Your task to perform on an android device: turn off notifications in google photos Image 0: 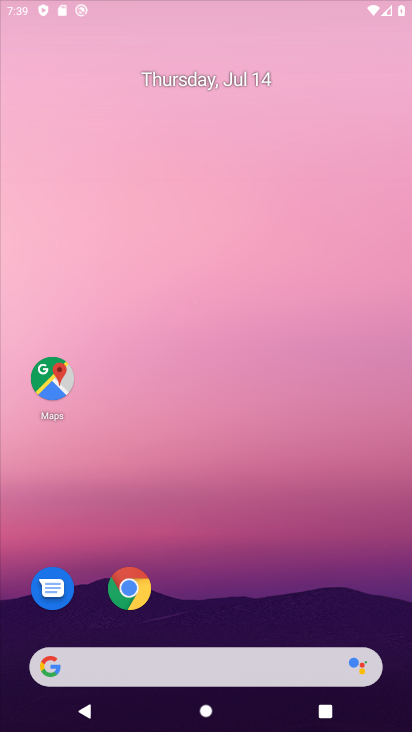
Step 0: drag from (20, 690) to (211, 122)
Your task to perform on an android device: turn off notifications in google photos Image 1: 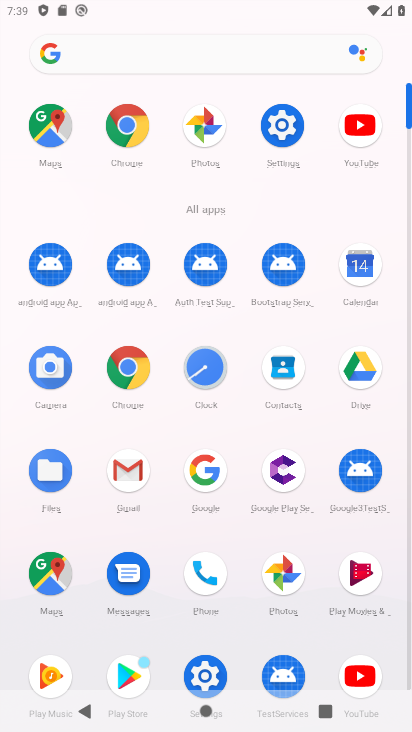
Step 1: click (194, 668)
Your task to perform on an android device: turn off notifications in google photos Image 2: 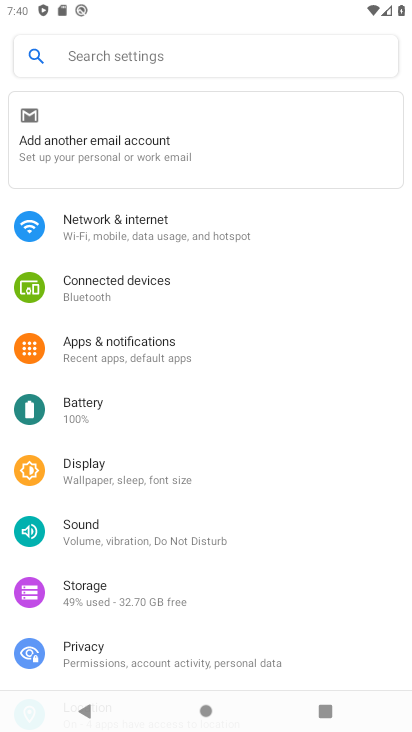
Step 2: drag from (312, 578) to (386, 145)
Your task to perform on an android device: turn off notifications in google photos Image 3: 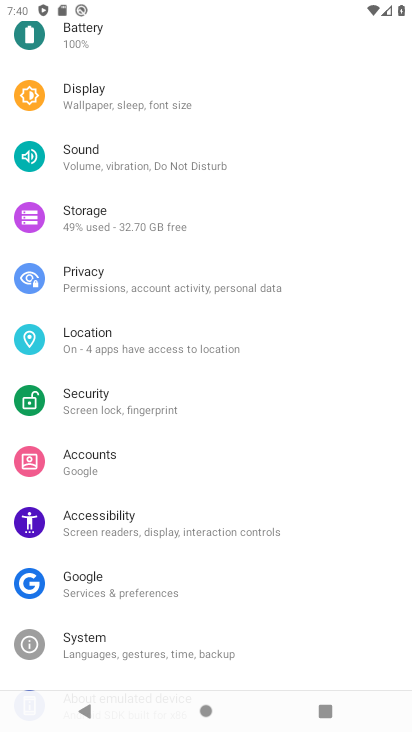
Step 3: drag from (206, 597) to (253, 279)
Your task to perform on an android device: turn off notifications in google photos Image 4: 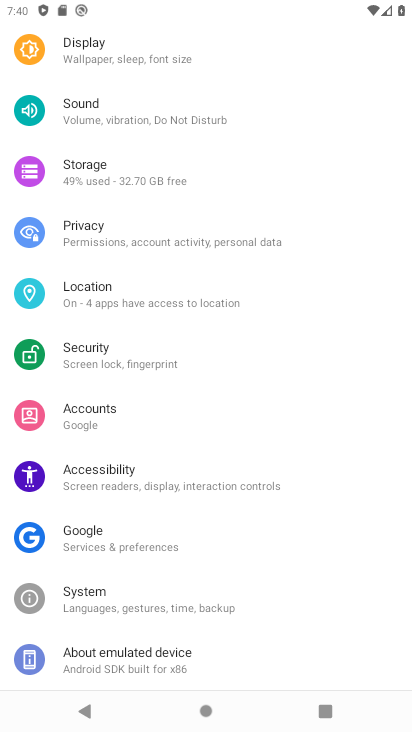
Step 4: press home button
Your task to perform on an android device: turn off notifications in google photos Image 5: 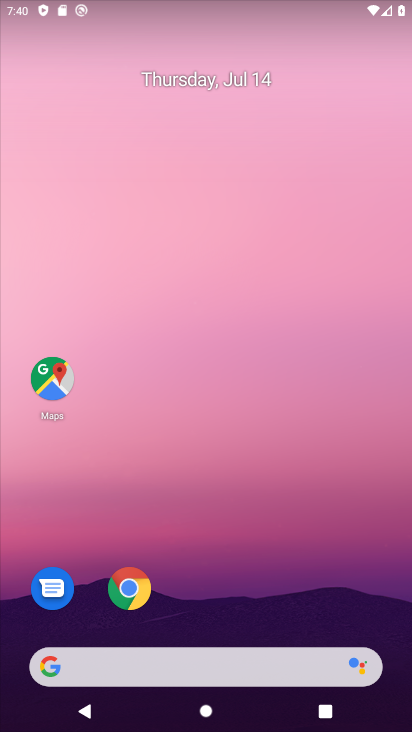
Step 5: drag from (80, 520) to (269, 107)
Your task to perform on an android device: turn off notifications in google photos Image 6: 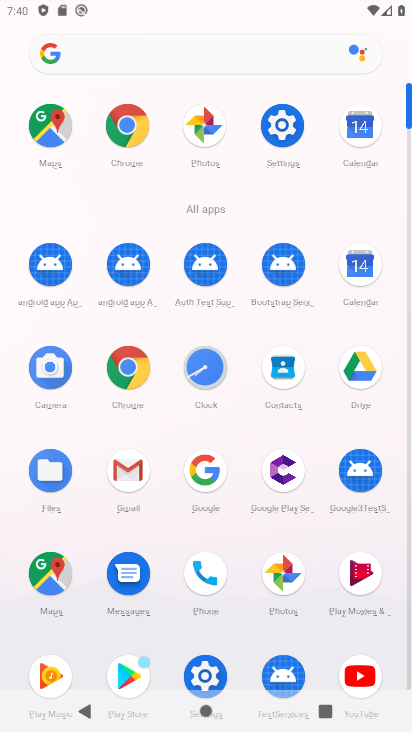
Step 6: click (292, 577)
Your task to perform on an android device: turn off notifications in google photos Image 7: 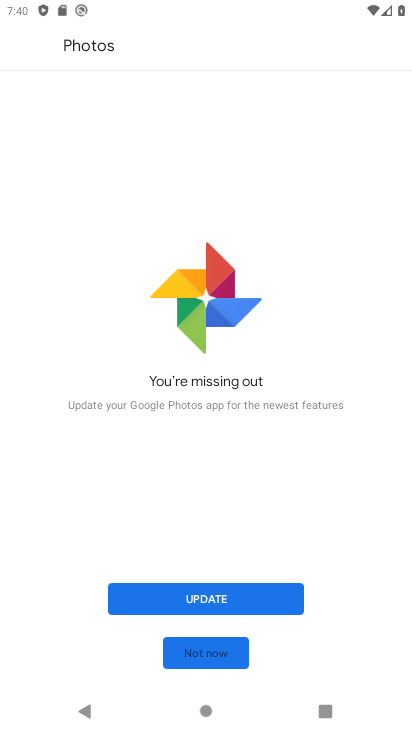
Step 7: click (186, 659)
Your task to perform on an android device: turn off notifications in google photos Image 8: 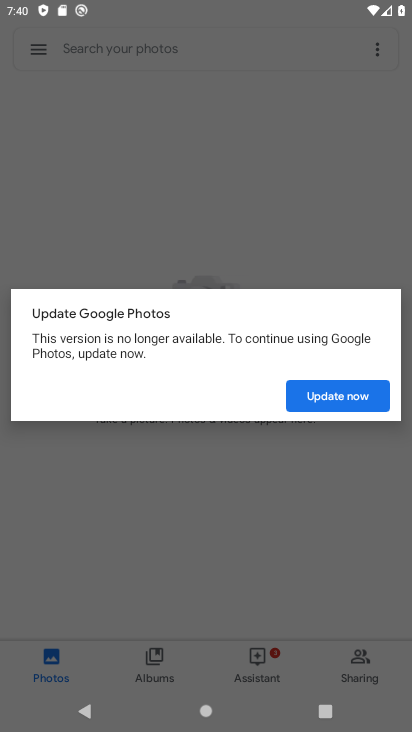
Step 8: click (320, 391)
Your task to perform on an android device: turn off notifications in google photos Image 9: 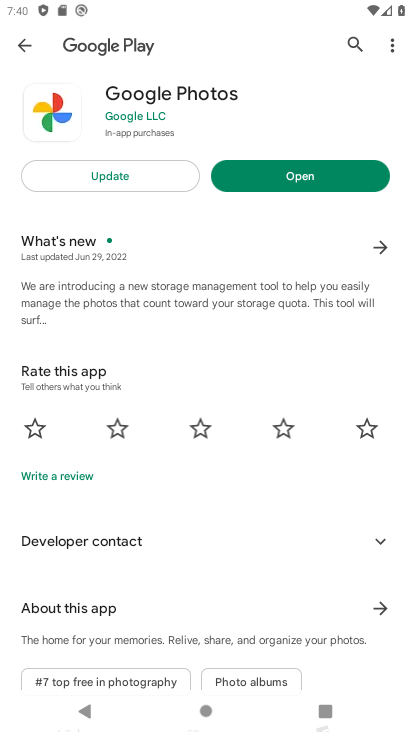
Step 9: click (256, 186)
Your task to perform on an android device: turn off notifications in google photos Image 10: 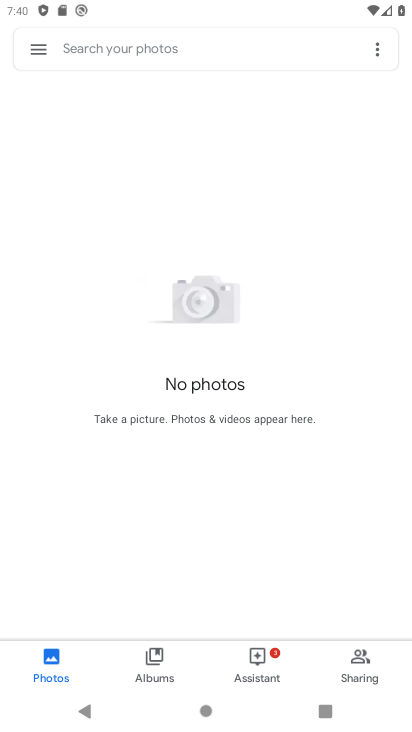
Step 10: click (50, 53)
Your task to perform on an android device: turn off notifications in google photos Image 11: 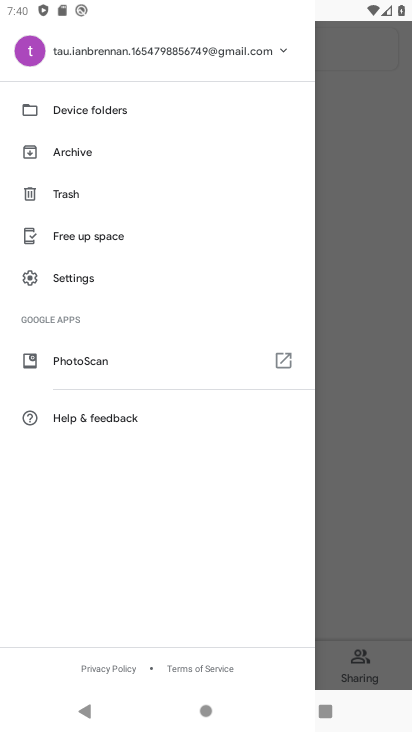
Step 11: click (88, 278)
Your task to perform on an android device: turn off notifications in google photos Image 12: 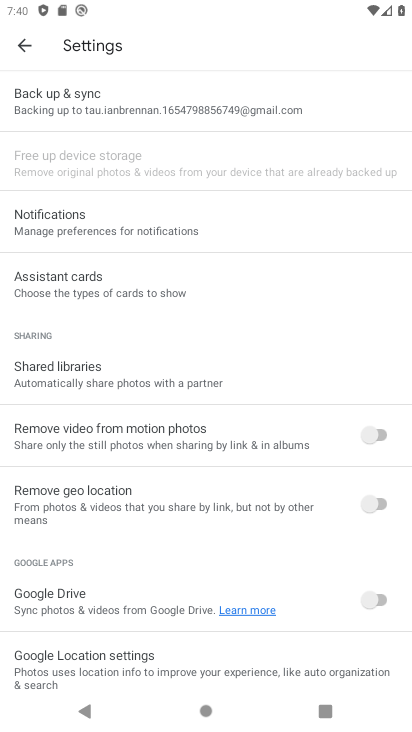
Step 12: click (81, 221)
Your task to perform on an android device: turn off notifications in google photos Image 13: 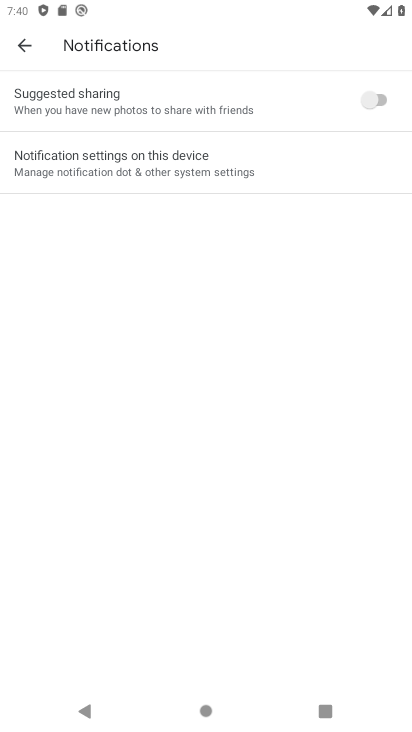
Step 13: click (87, 145)
Your task to perform on an android device: turn off notifications in google photos Image 14: 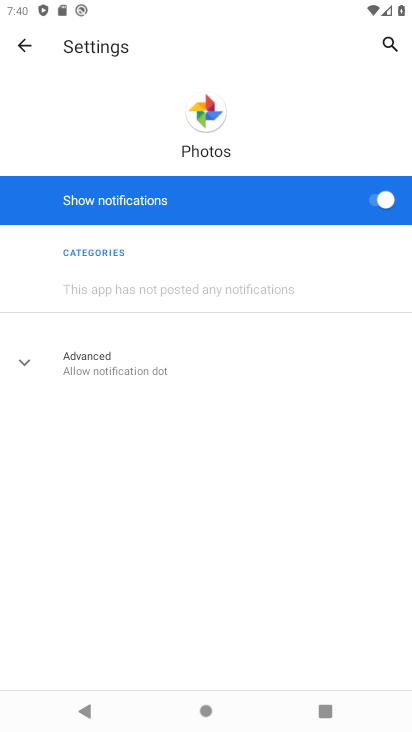
Step 14: click (392, 201)
Your task to perform on an android device: turn off notifications in google photos Image 15: 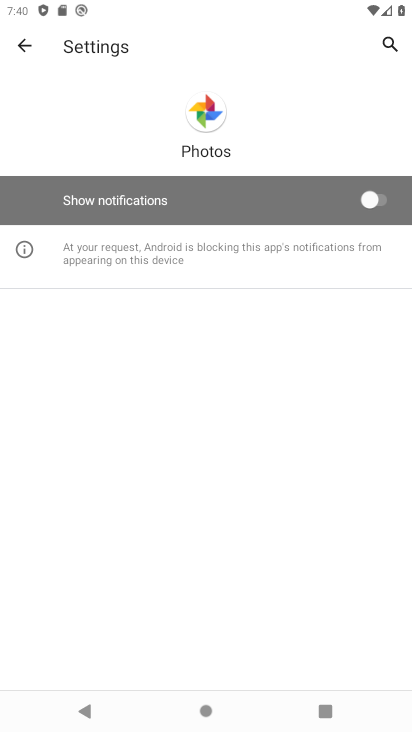
Step 15: task complete